Your task to perform on an android device: add a contact in the contacts app Image 0: 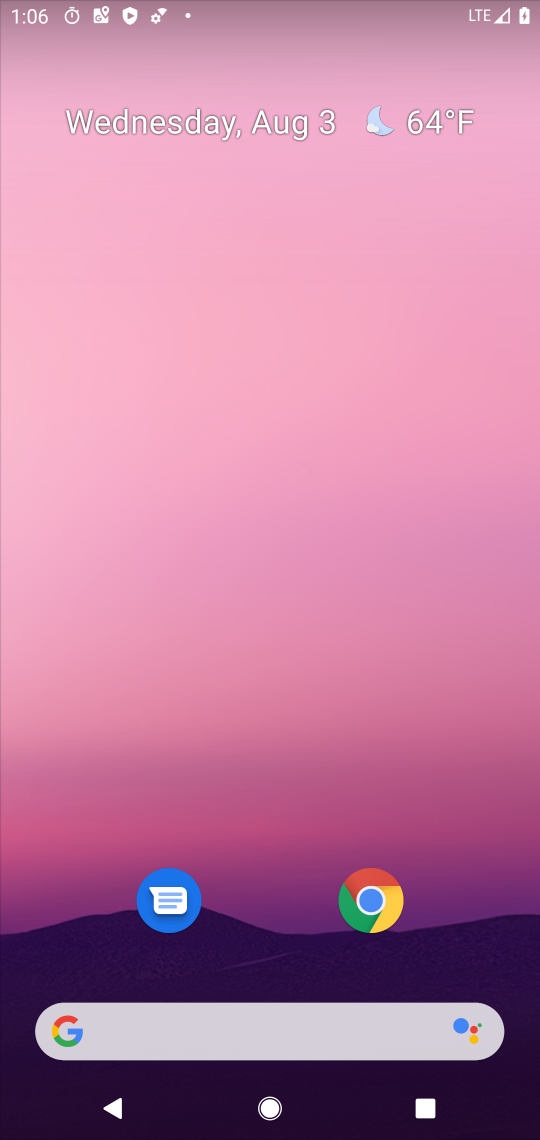
Step 0: drag from (268, 904) to (272, 45)
Your task to perform on an android device: add a contact in the contacts app Image 1: 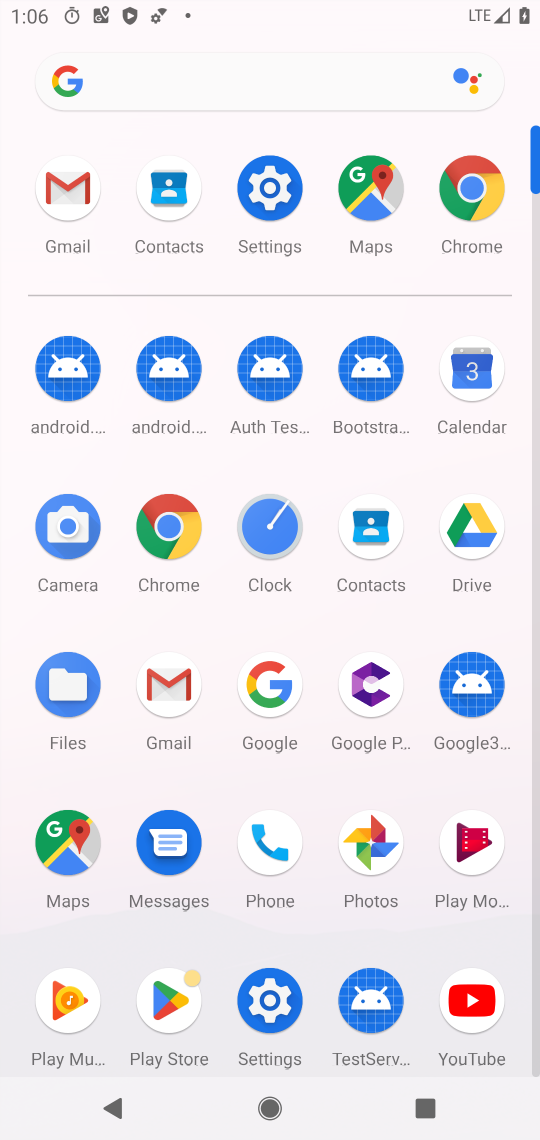
Step 1: click (371, 523)
Your task to perform on an android device: add a contact in the contacts app Image 2: 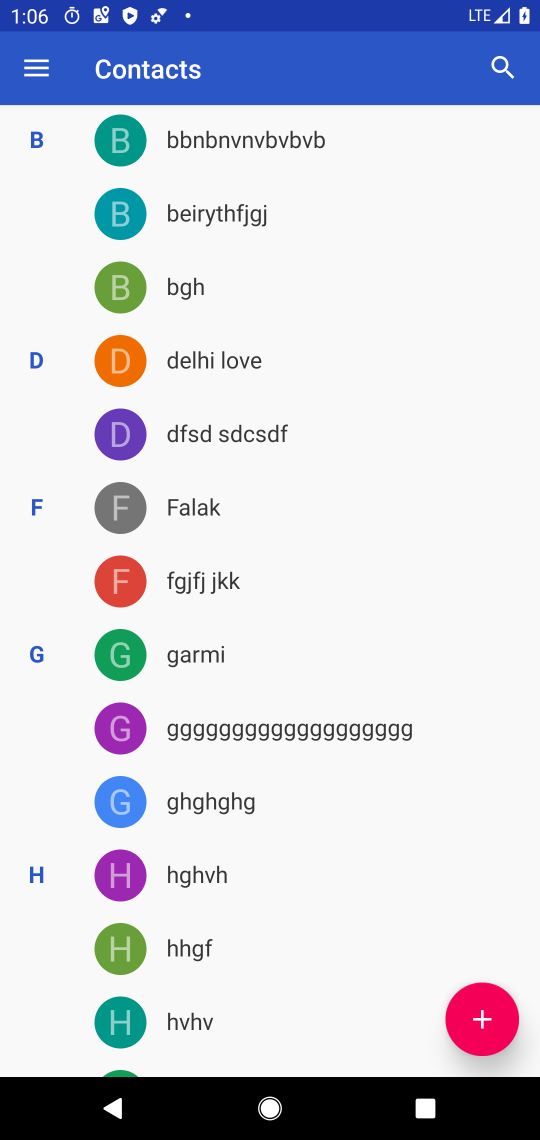
Step 2: click (497, 1005)
Your task to perform on an android device: add a contact in the contacts app Image 3: 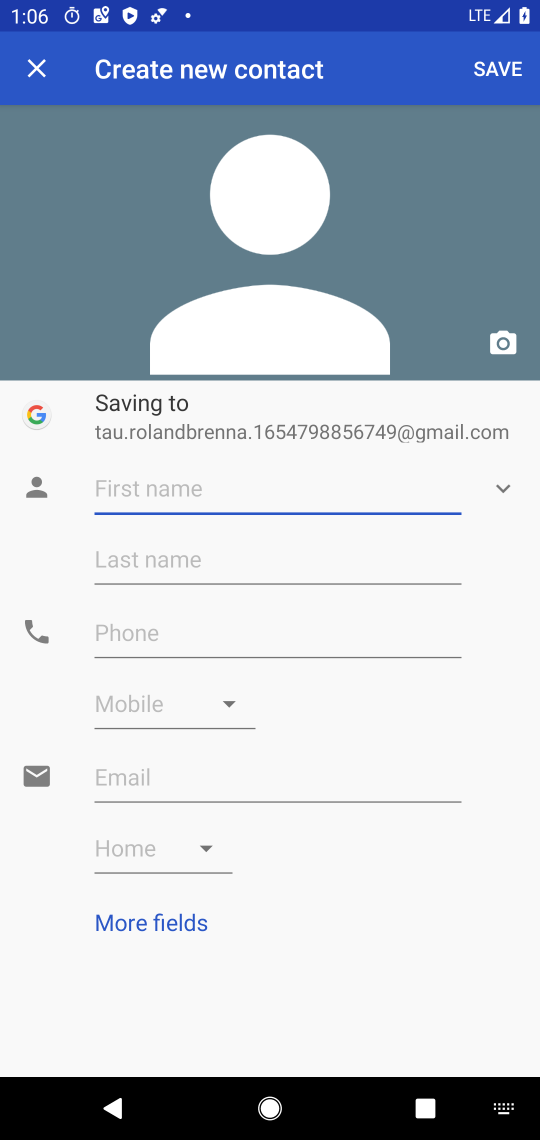
Step 3: type "global"
Your task to perform on an android device: add a contact in the contacts app Image 4: 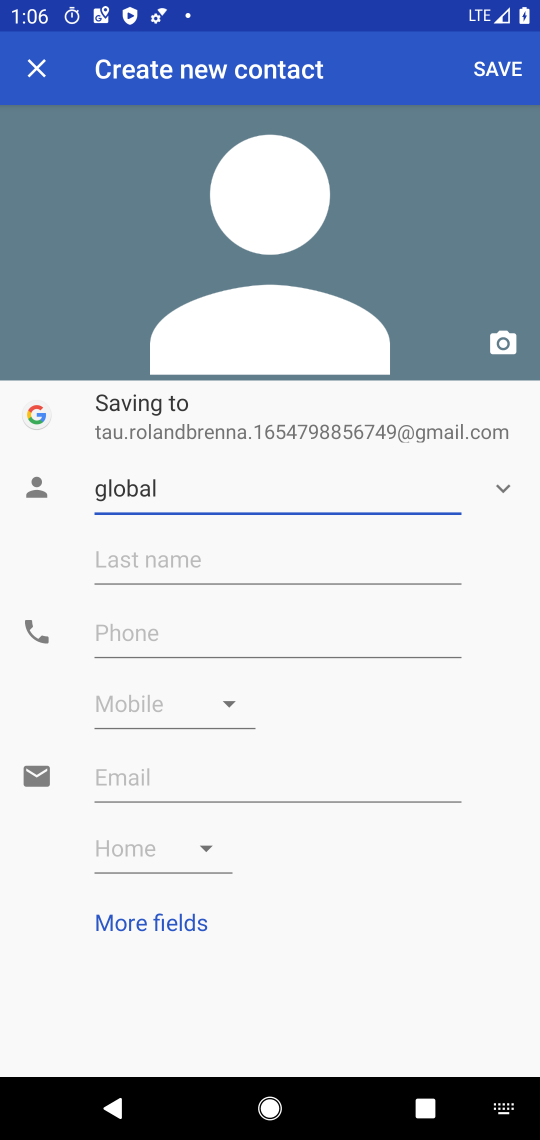
Step 4: click (503, 69)
Your task to perform on an android device: add a contact in the contacts app Image 5: 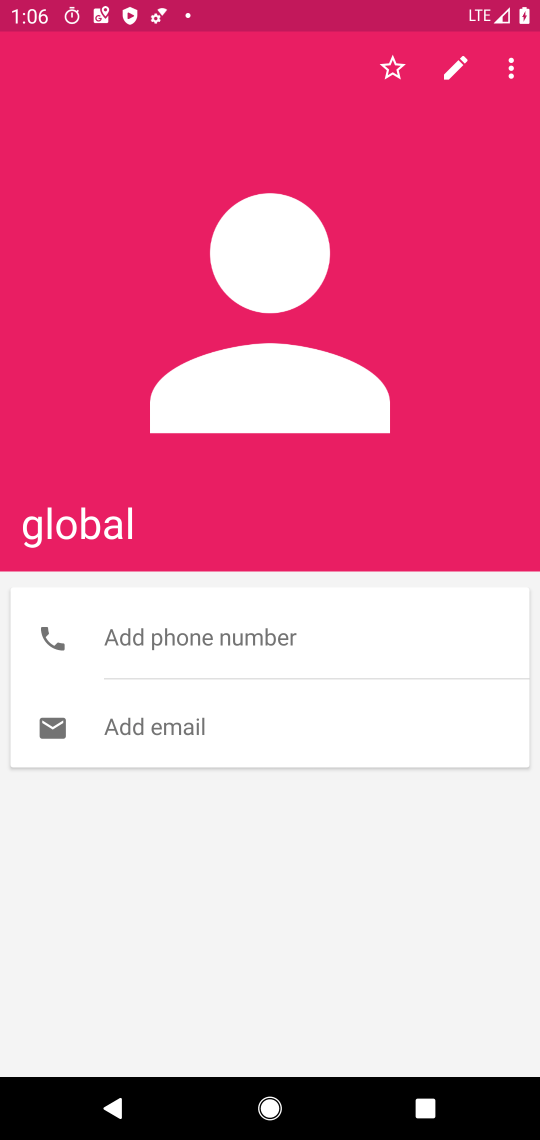
Step 5: task complete